Your task to perform on an android device: What is the news today? Image 0: 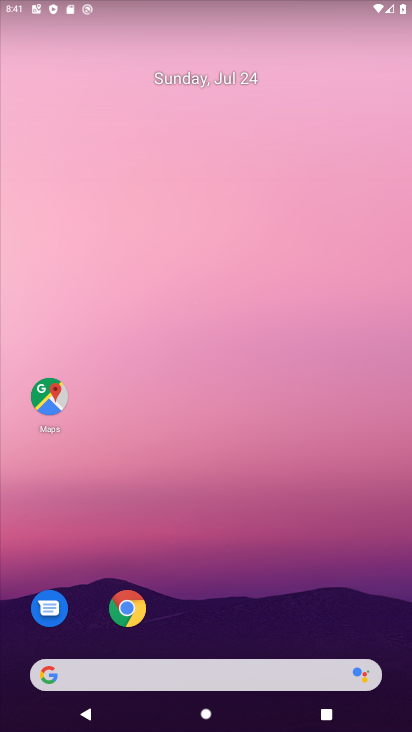
Step 0: click (164, 669)
Your task to perform on an android device: What is the news today? Image 1: 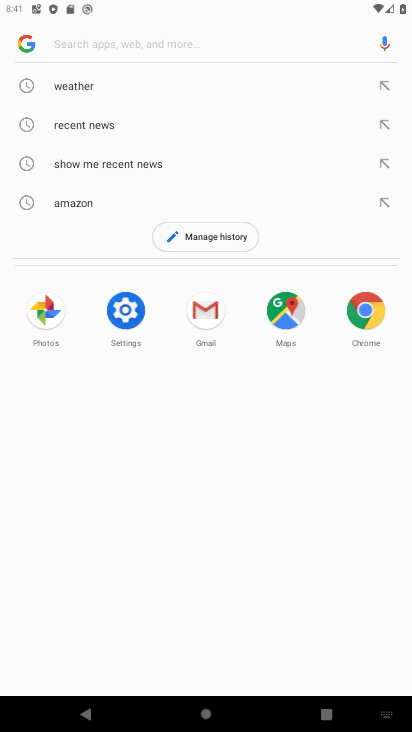
Step 1: type "news today "
Your task to perform on an android device: What is the news today? Image 2: 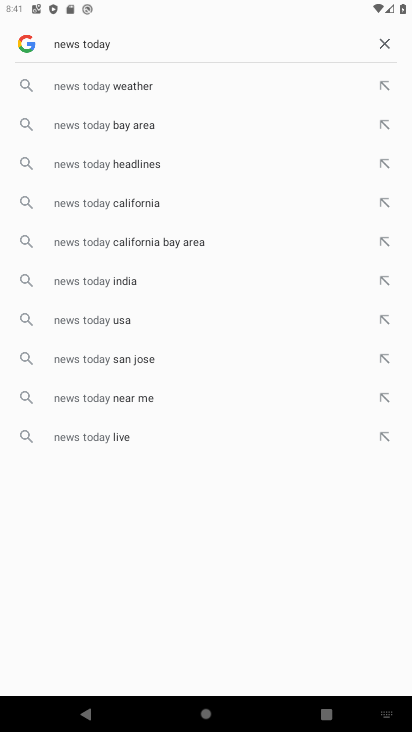
Step 2: click (94, 322)
Your task to perform on an android device: What is the news today? Image 3: 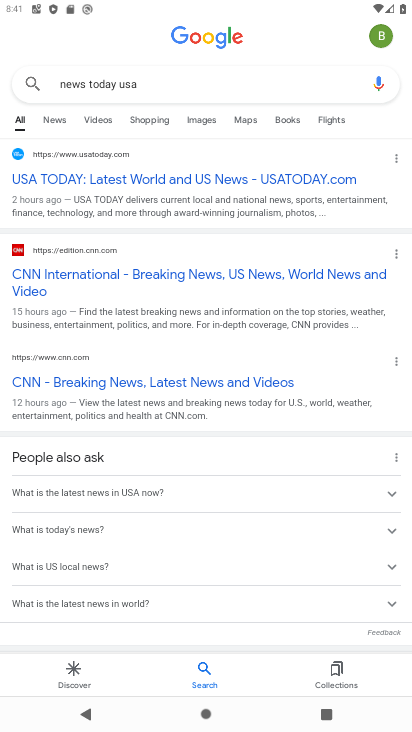
Step 3: task complete